Your task to perform on an android device: Open battery settings Image 0: 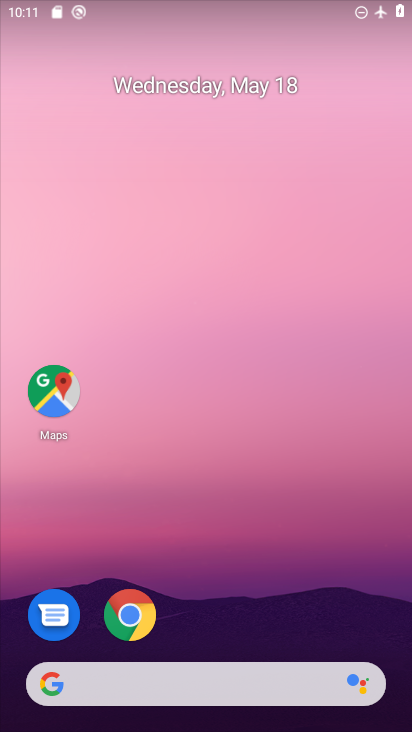
Step 0: drag from (252, 554) to (254, 44)
Your task to perform on an android device: Open battery settings Image 1: 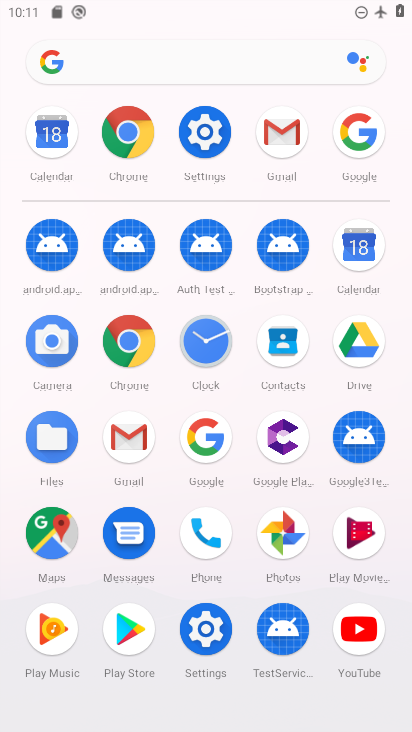
Step 1: click (206, 133)
Your task to perform on an android device: Open battery settings Image 2: 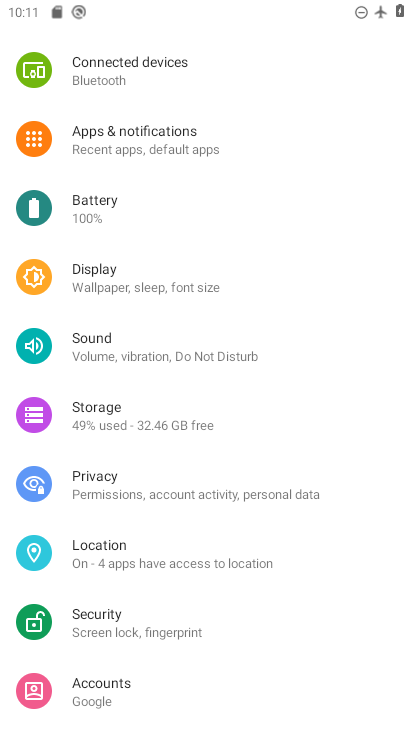
Step 2: click (109, 212)
Your task to perform on an android device: Open battery settings Image 3: 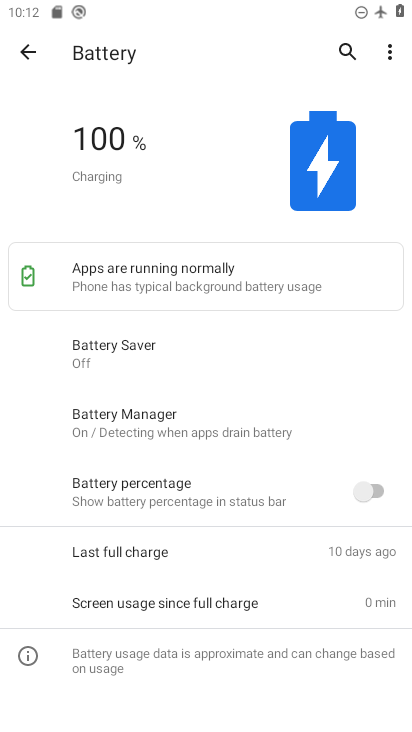
Step 3: task complete